Your task to perform on an android device: Turn off the flashlight Image 0: 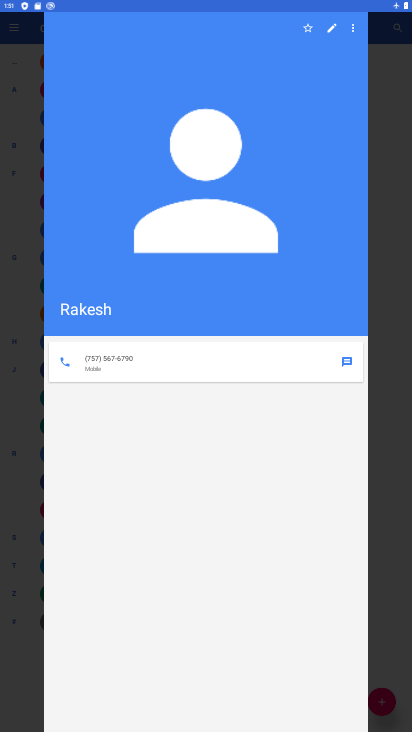
Step 0: press home button
Your task to perform on an android device: Turn off the flashlight Image 1: 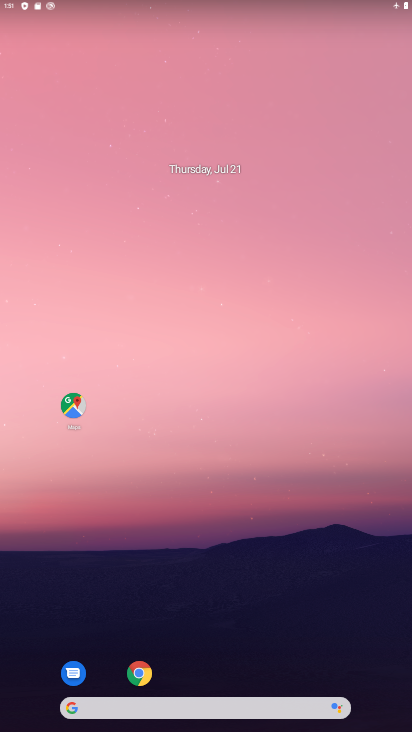
Step 1: task complete